Your task to perform on an android device: toggle priority inbox in the gmail app Image 0: 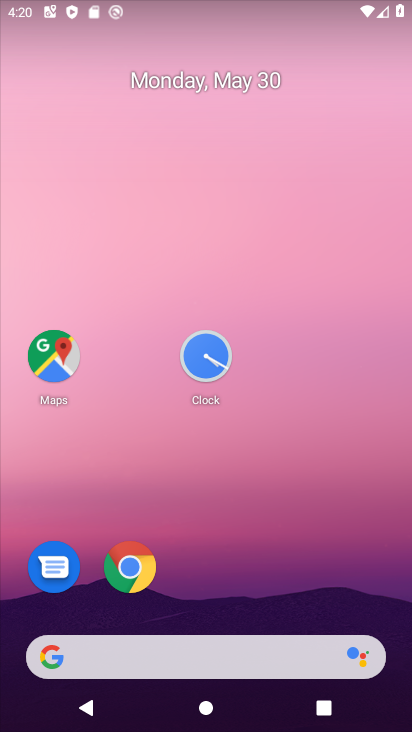
Step 0: drag from (135, 234) to (129, 189)
Your task to perform on an android device: toggle priority inbox in the gmail app Image 1: 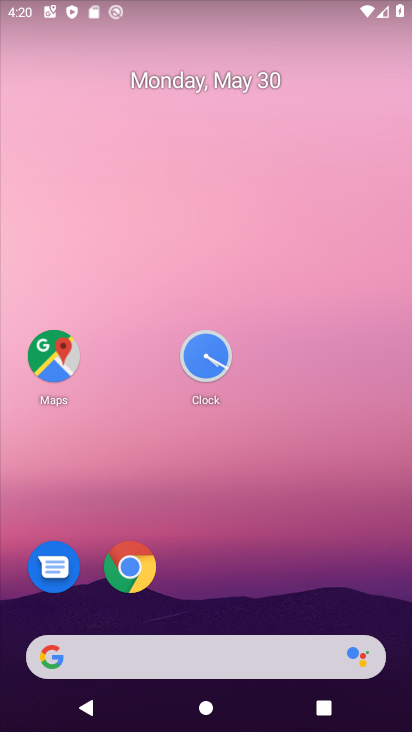
Step 1: drag from (255, 576) to (143, 59)
Your task to perform on an android device: toggle priority inbox in the gmail app Image 2: 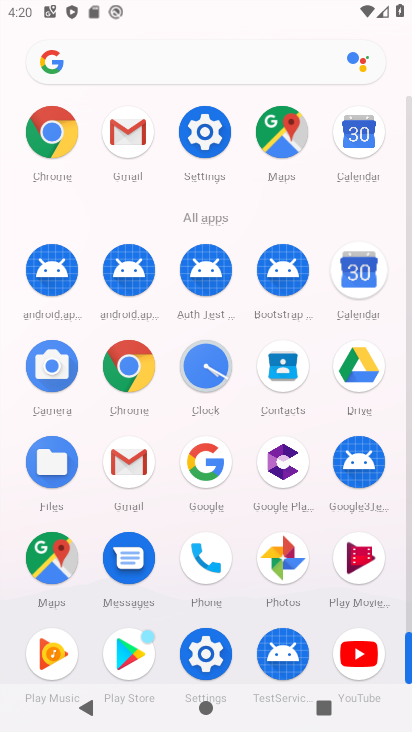
Step 2: drag from (194, 484) to (203, 20)
Your task to perform on an android device: toggle priority inbox in the gmail app Image 3: 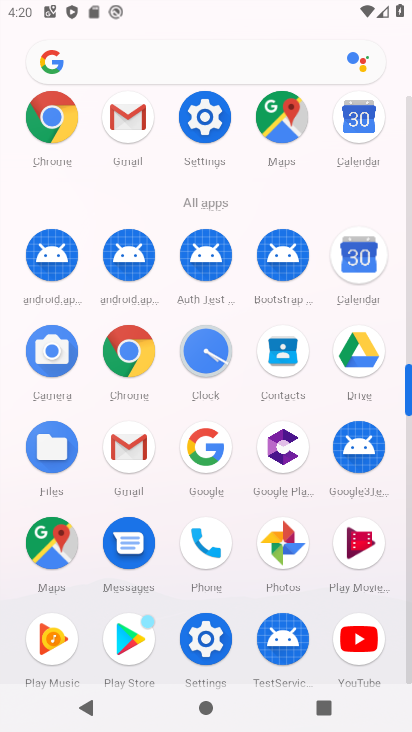
Step 3: click (123, 448)
Your task to perform on an android device: toggle priority inbox in the gmail app Image 4: 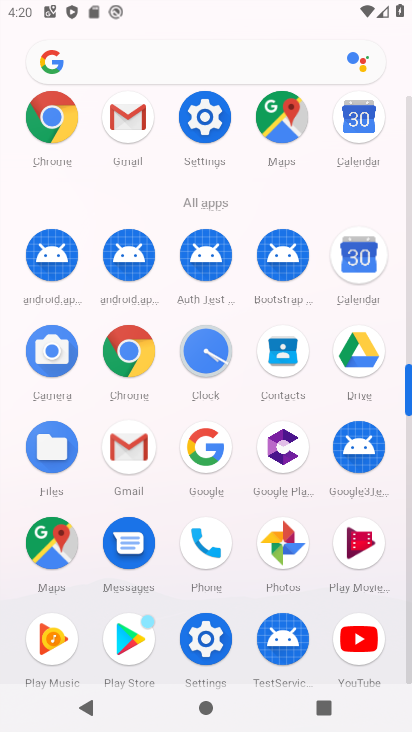
Step 4: click (131, 448)
Your task to perform on an android device: toggle priority inbox in the gmail app Image 5: 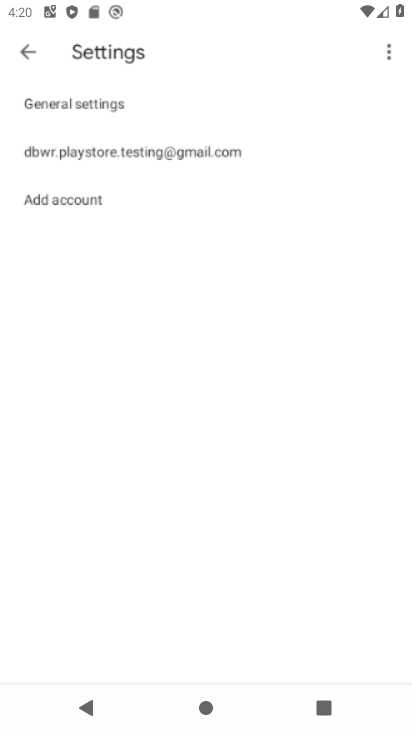
Step 5: click (129, 448)
Your task to perform on an android device: toggle priority inbox in the gmail app Image 6: 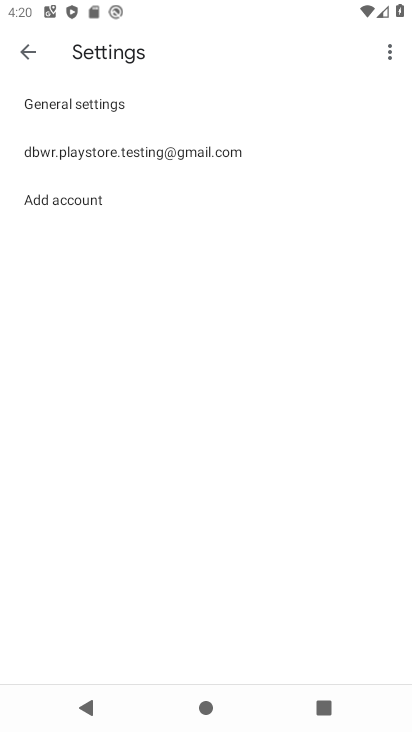
Step 6: click (129, 448)
Your task to perform on an android device: toggle priority inbox in the gmail app Image 7: 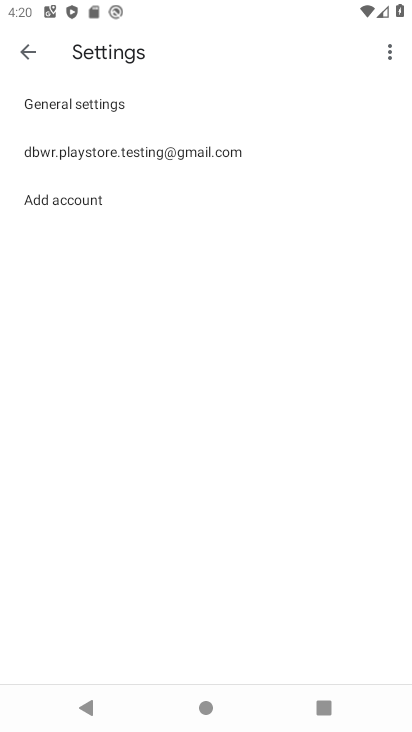
Step 7: click (93, 148)
Your task to perform on an android device: toggle priority inbox in the gmail app Image 8: 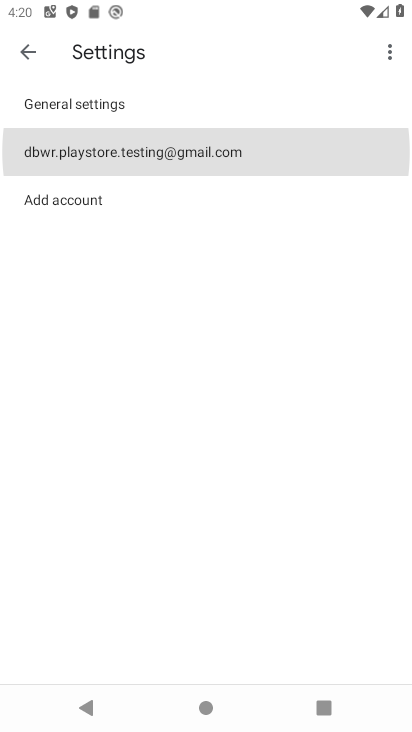
Step 8: click (94, 149)
Your task to perform on an android device: toggle priority inbox in the gmail app Image 9: 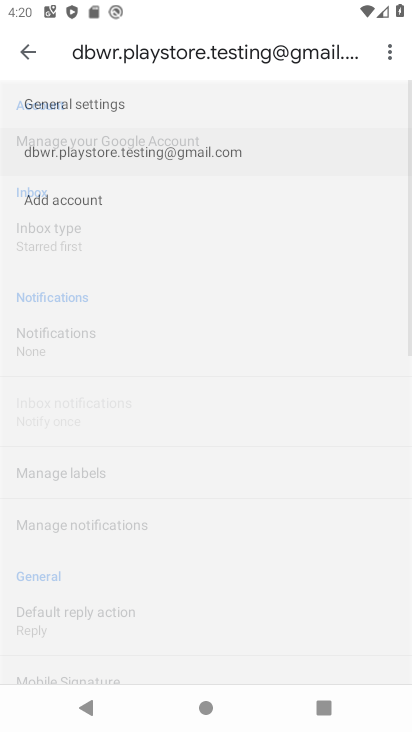
Step 9: click (94, 149)
Your task to perform on an android device: toggle priority inbox in the gmail app Image 10: 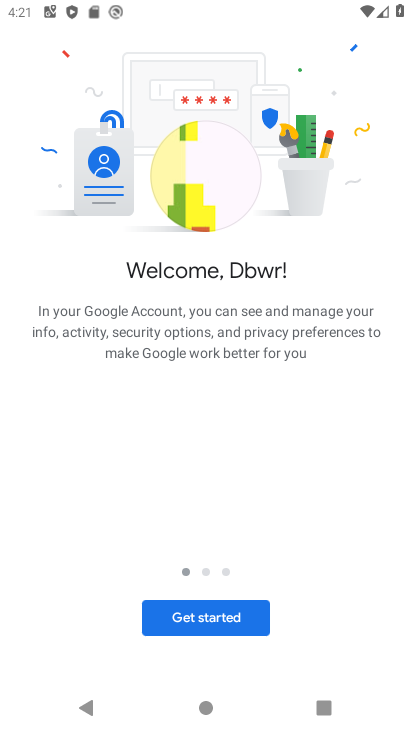
Step 10: click (223, 568)
Your task to perform on an android device: toggle priority inbox in the gmail app Image 11: 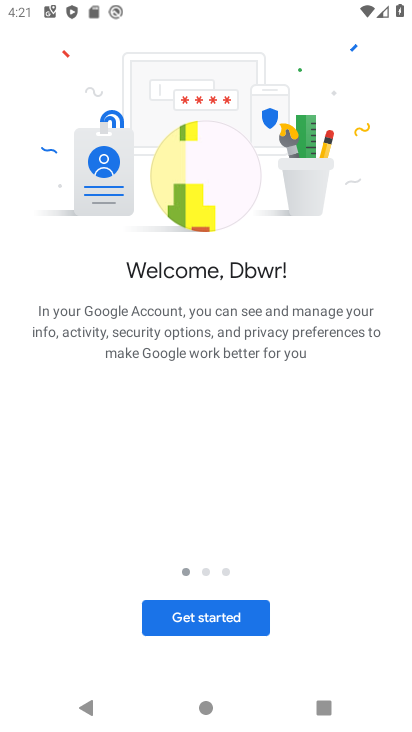
Step 11: click (223, 568)
Your task to perform on an android device: toggle priority inbox in the gmail app Image 12: 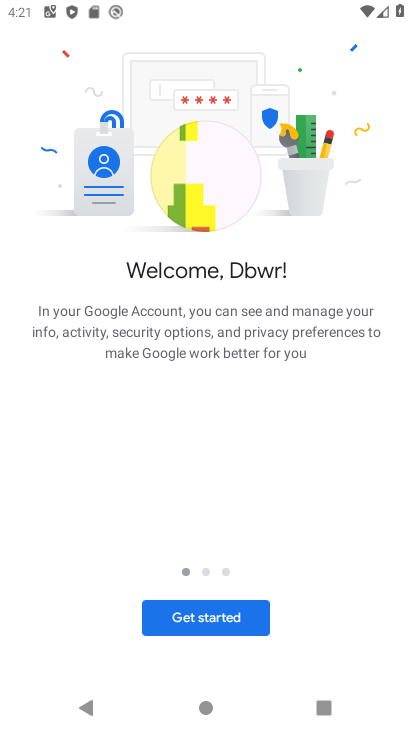
Step 12: click (222, 571)
Your task to perform on an android device: toggle priority inbox in the gmail app Image 13: 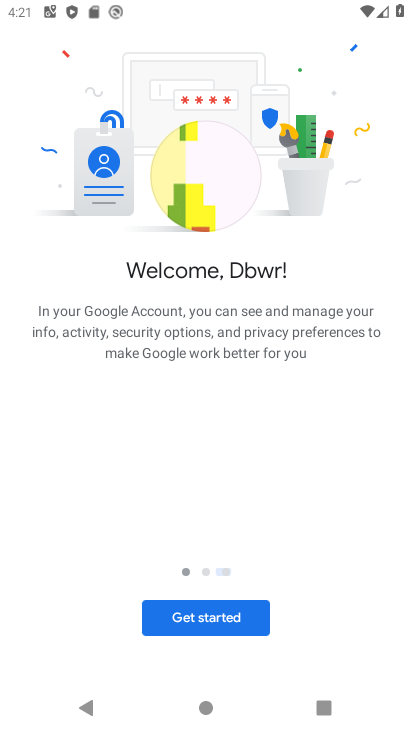
Step 13: click (221, 572)
Your task to perform on an android device: toggle priority inbox in the gmail app Image 14: 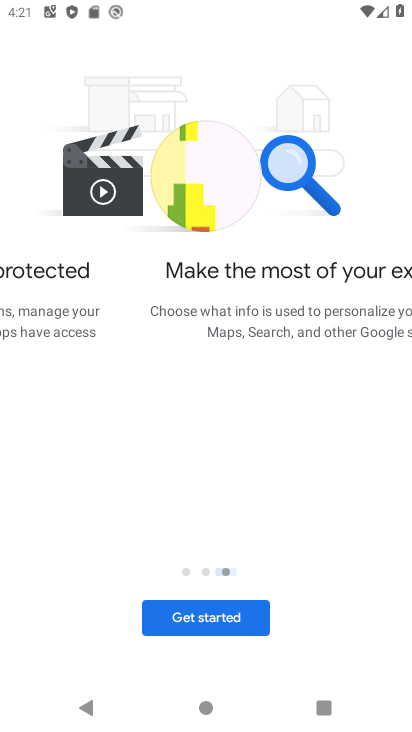
Step 14: click (221, 572)
Your task to perform on an android device: toggle priority inbox in the gmail app Image 15: 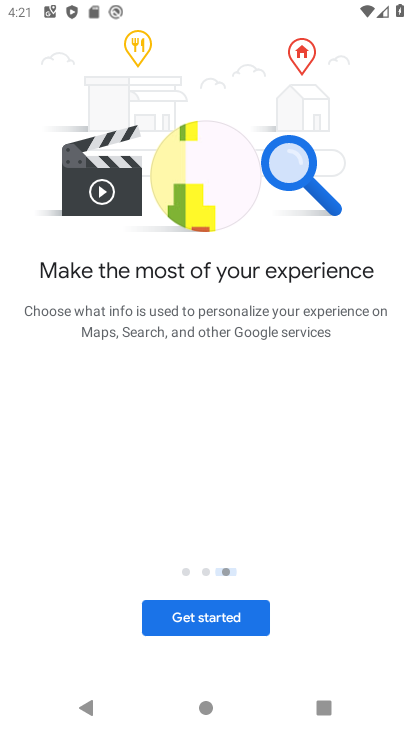
Step 15: click (220, 573)
Your task to perform on an android device: toggle priority inbox in the gmail app Image 16: 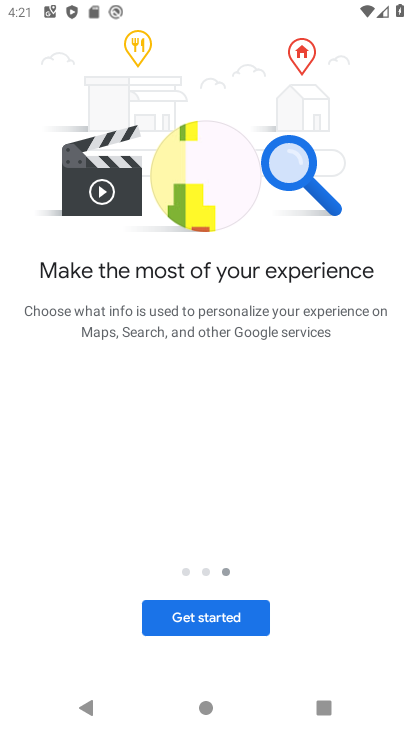
Step 16: press back button
Your task to perform on an android device: toggle priority inbox in the gmail app Image 17: 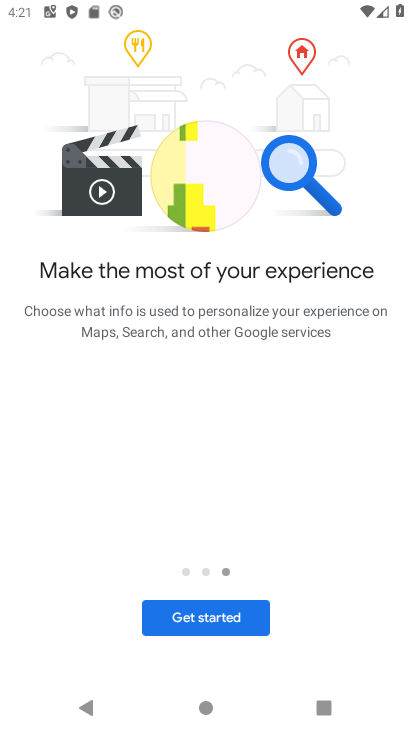
Step 17: press back button
Your task to perform on an android device: toggle priority inbox in the gmail app Image 18: 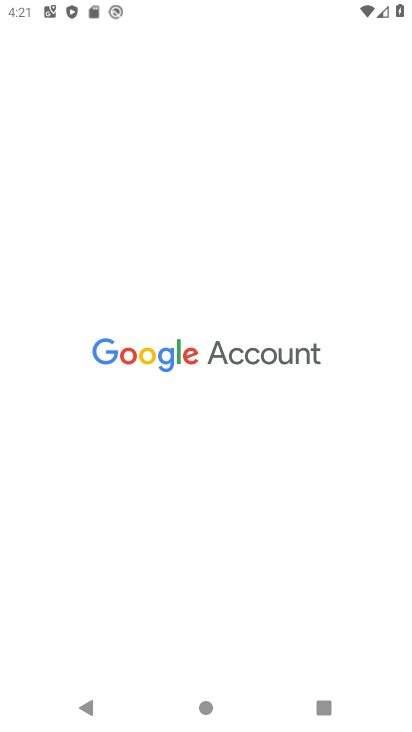
Step 18: press back button
Your task to perform on an android device: toggle priority inbox in the gmail app Image 19: 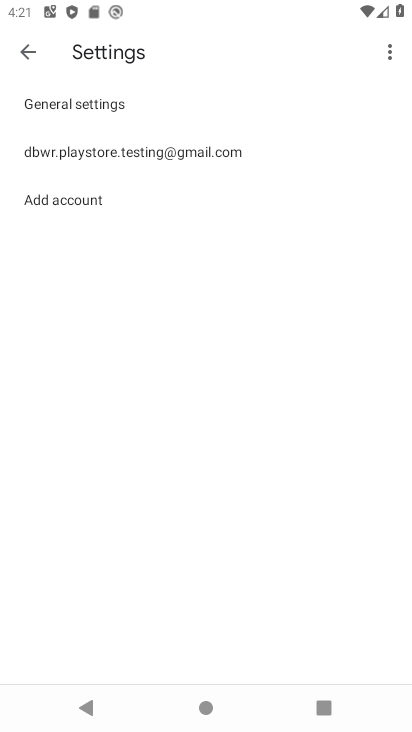
Step 19: click (33, 55)
Your task to perform on an android device: toggle priority inbox in the gmail app Image 20: 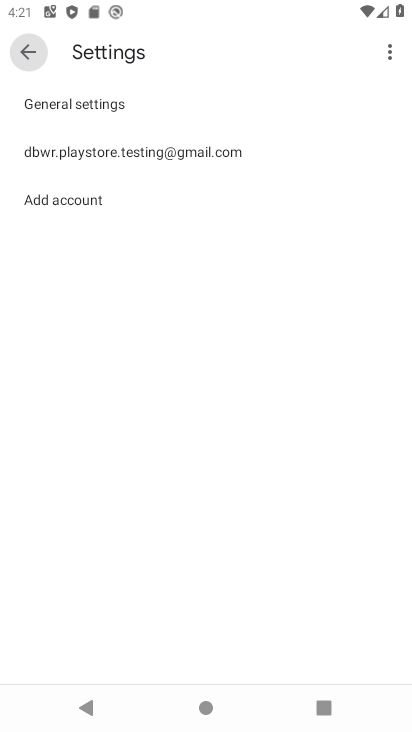
Step 20: click (33, 57)
Your task to perform on an android device: toggle priority inbox in the gmail app Image 21: 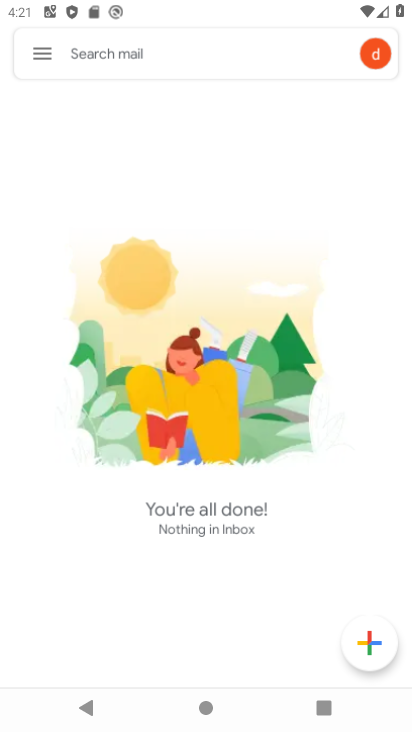
Step 21: click (34, 58)
Your task to perform on an android device: toggle priority inbox in the gmail app Image 22: 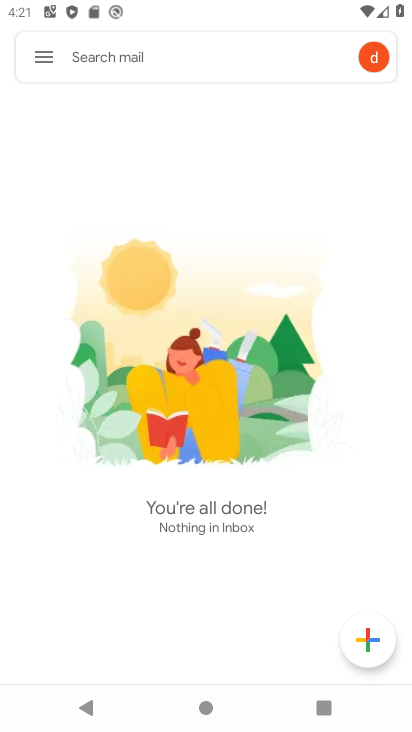
Step 22: click (34, 58)
Your task to perform on an android device: toggle priority inbox in the gmail app Image 23: 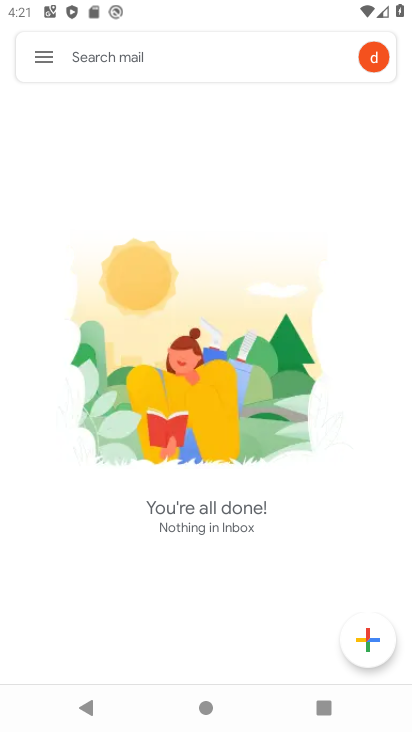
Step 23: click (41, 62)
Your task to perform on an android device: toggle priority inbox in the gmail app Image 24: 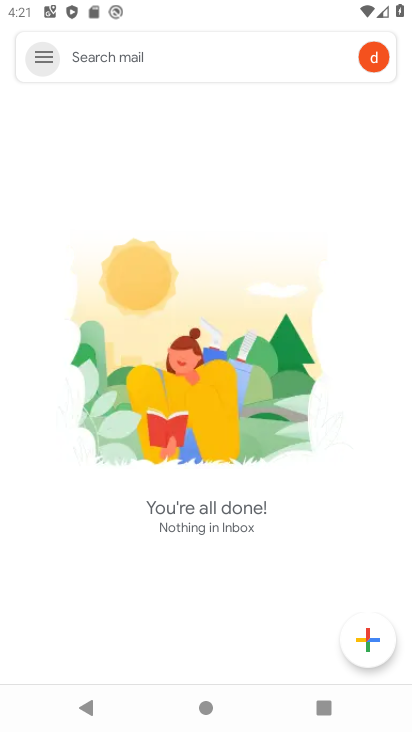
Step 24: click (42, 61)
Your task to perform on an android device: toggle priority inbox in the gmail app Image 25: 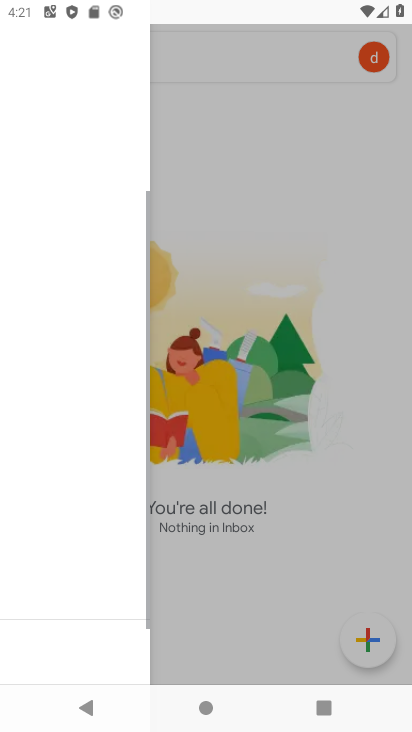
Step 25: click (44, 62)
Your task to perform on an android device: toggle priority inbox in the gmail app Image 26: 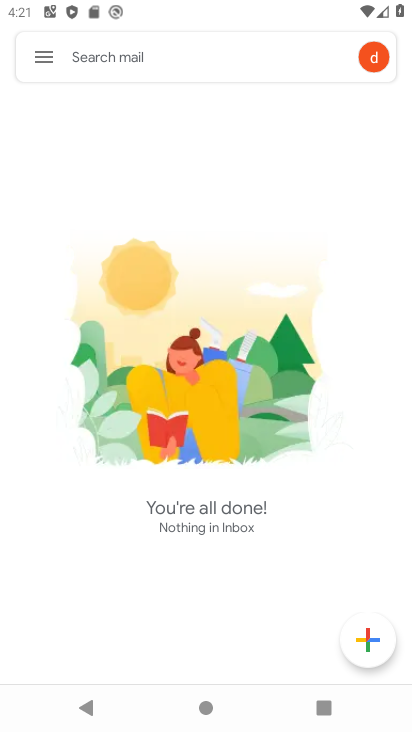
Step 26: click (46, 59)
Your task to perform on an android device: toggle priority inbox in the gmail app Image 27: 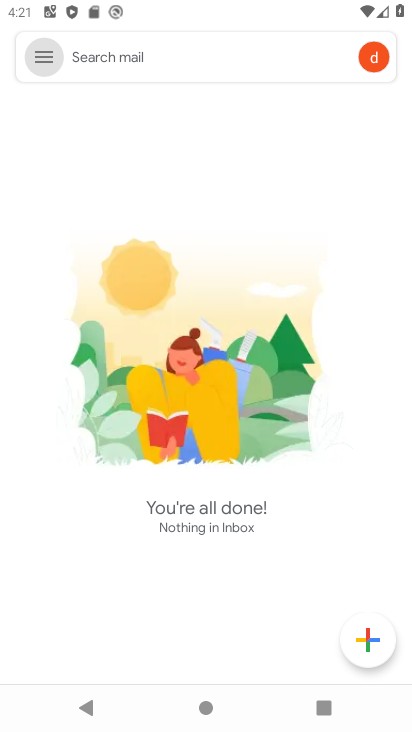
Step 27: click (47, 60)
Your task to perform on an android device: toggle priority inbox in the gmail app Image 28: 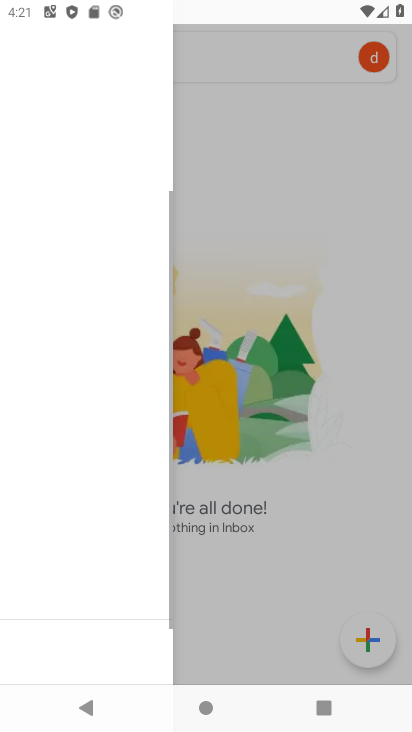
Step 28: click (47, 60)
Your task to perform on an android device: toggle priority inbox in the gmail app Image 29: 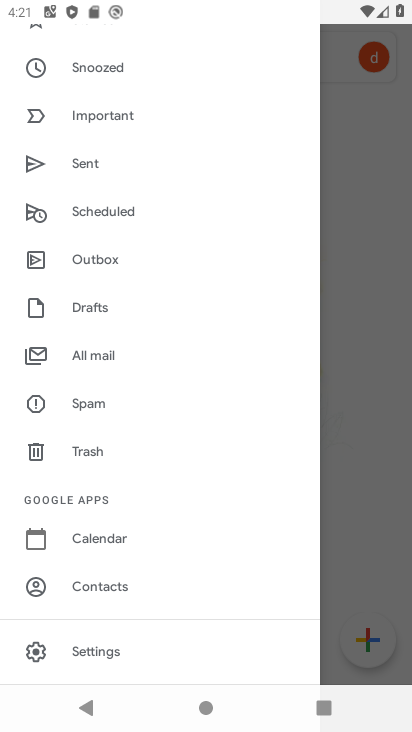
Step 29: click (96, 645)
Your task to perform on an android device: toggle priority inbox in the gmail app Image 30: 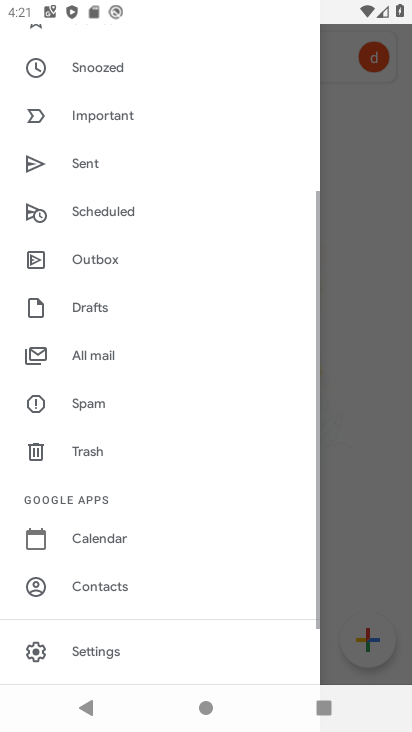
Step 30: click (96, 646)
Your task to perform on an android device: toggle priority inbox in the gmail app Image 31: 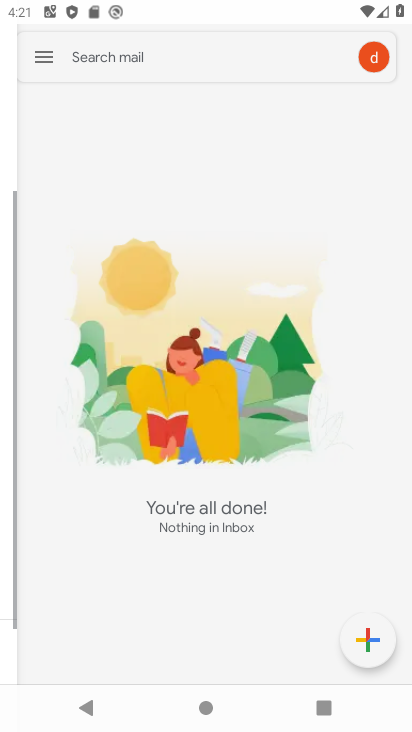
Step 31: click (96, 646)
Your task to perform on an android device: toggle priority inbox in the gmail app Image 32: 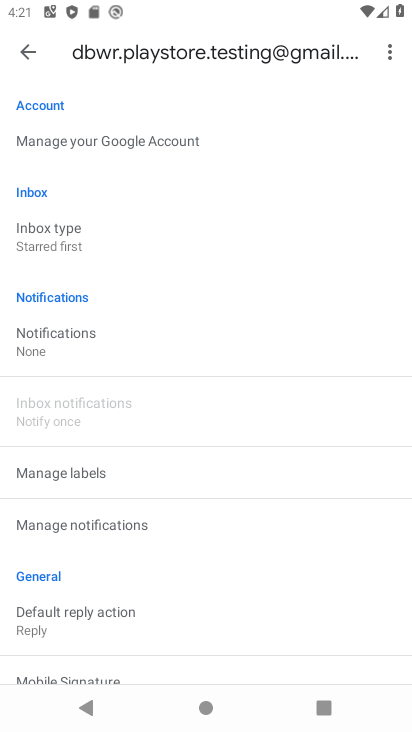
Step 32: click (43, 234)
Your task to perform on an android device: toggle priority inbox in the gmail app Image 33: 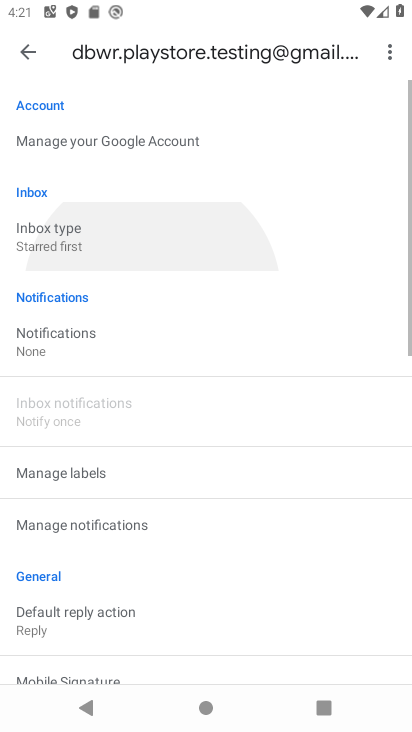
Step 33: click (42, 235)
Your task to perform on an android device: toggle priority inbox in the gmail app Image 34: 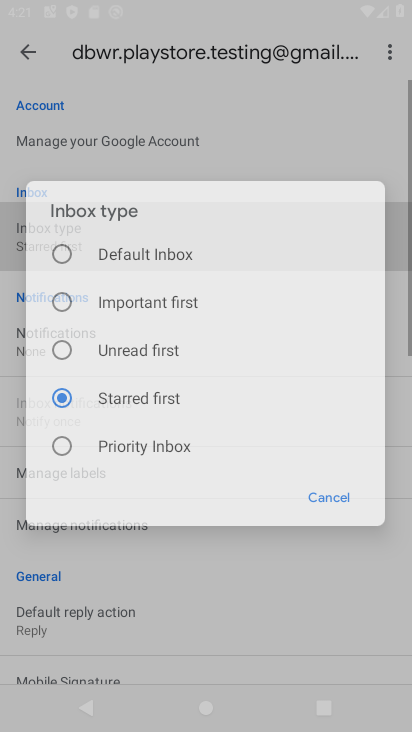
Step 34: click (33, 252)
Your task to perform on an android device: toggle priority inbox in the gmail app Image 35: 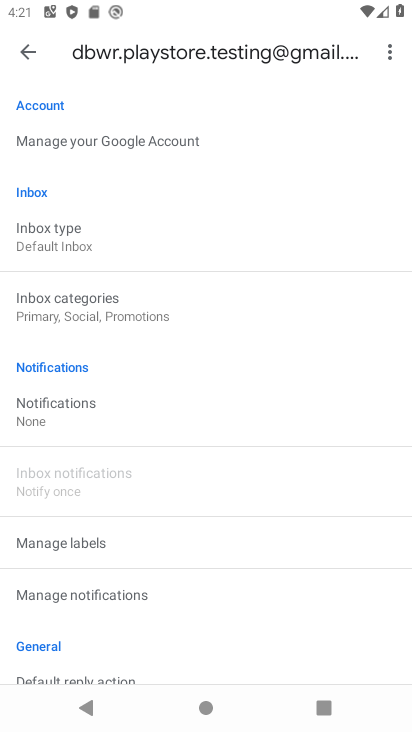
Step 35: click (39, 244)
Your task to perform on an android device: toggle priority inbox in the gmail app Image 36: 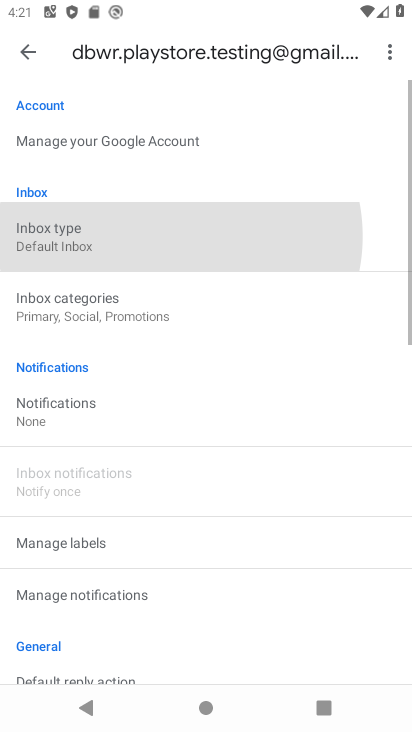
Step 36: click (44, 245)
Your task to perform on an android device: toggle priority inbox in the gmail app Image 37: 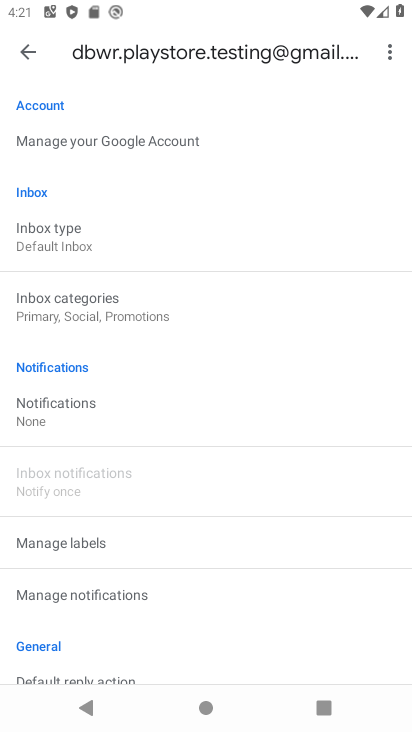
Step 37: click (47, 235)
Your task to perform on an android device: toggle priority inbox in the gmail app Image 38: 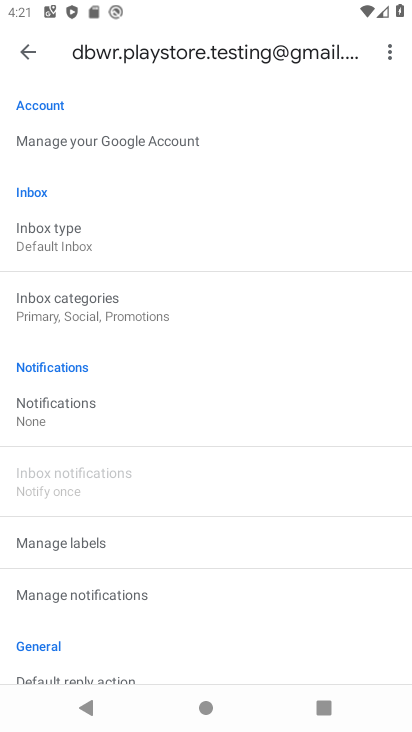
Step 38: click (47, 235)
Your task to perform on an android device: toggle priority inbox in the gmail app Image 39: 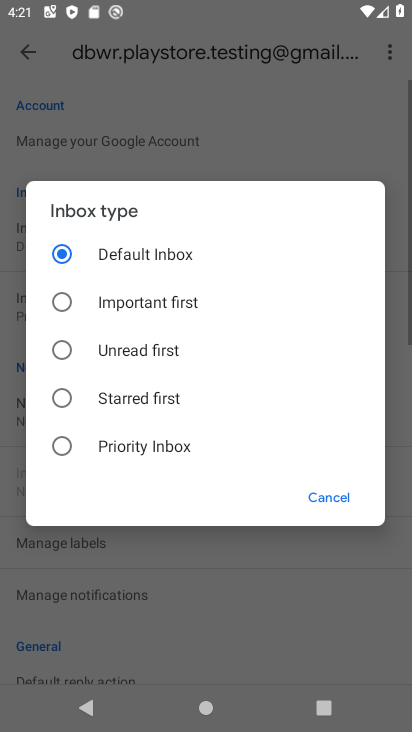
Step 39: click (65, 458)
Your task to perform on an android device: toggle priority inbox in the gmail app Image 40: 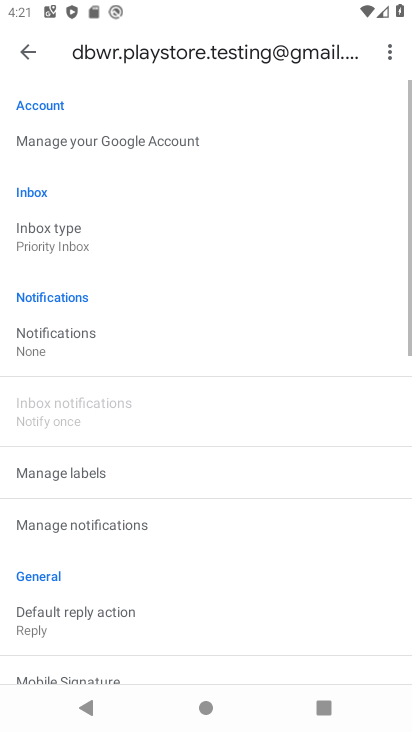
Step 40: click (59, 446)
Your task to perform on an android device: toggle priority inbox in the gmail app Image 41: 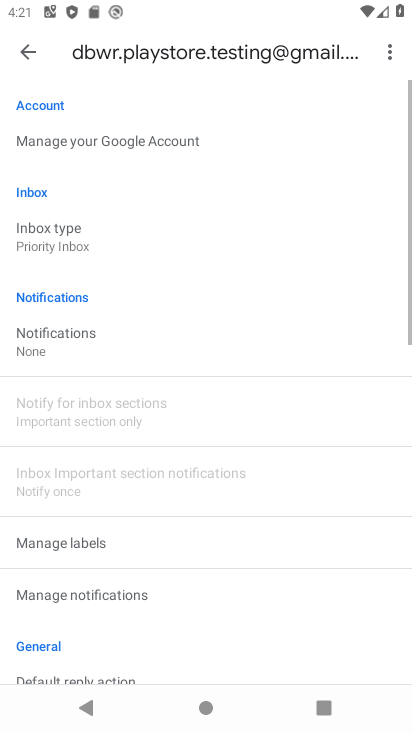
Step 41: click (59, 446)
Your task to perform on an android device: toggle priority inbox in the gmail app Image 42: 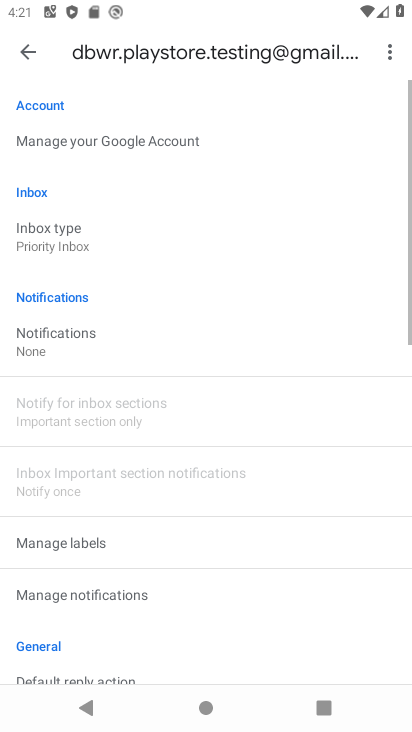
Step 42: click (59, 446)
Your task to perform on an android device: toggle priority inbox in the gmail app Image 43: 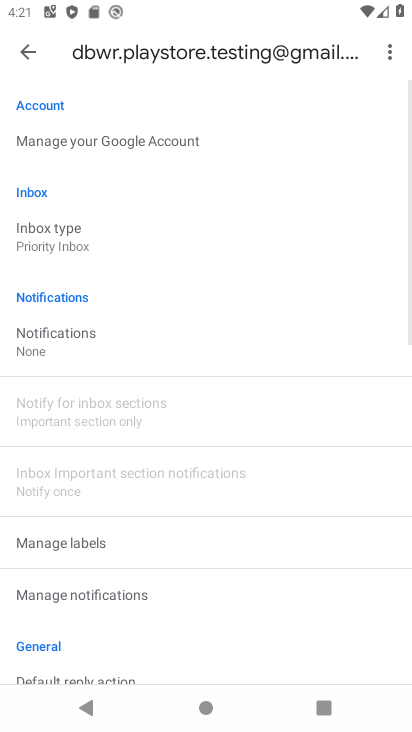
Step 43: task complete